Your task to perform on an android device: Open ESPN.com Image 0: 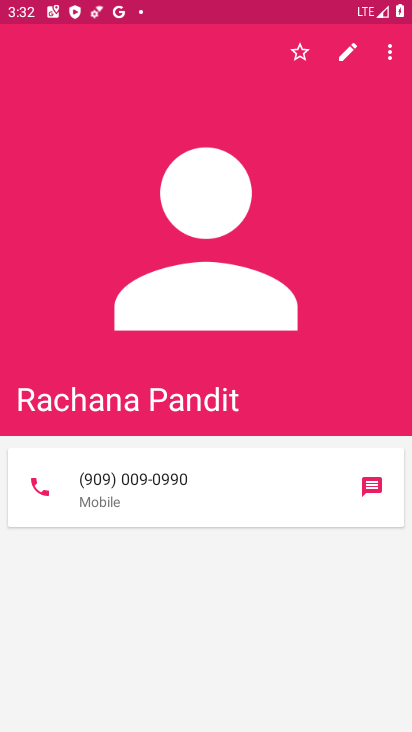
Step 0: press home button
Your task to perform on an android device: Open ESPN.com Image 1: 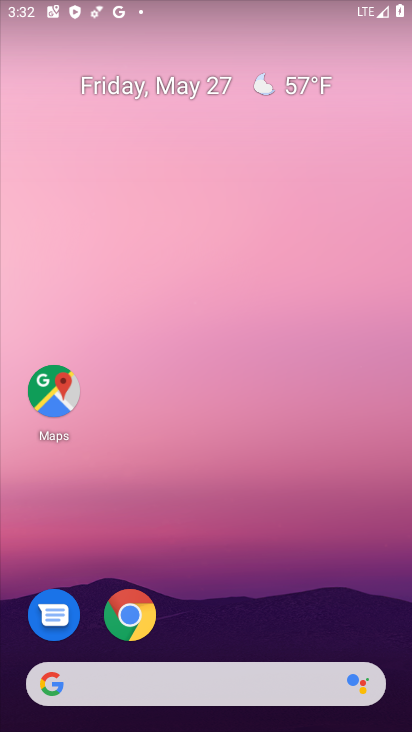
Step 1: click (121, 629)
Your task to perform on an android device: Open ESPN.com Image 2: 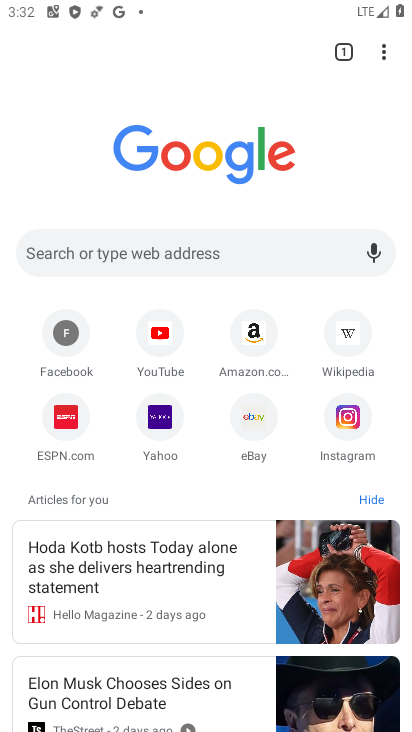
Step 2: click (32, 442)
Your task to perform on an android device: Open ESPN.com Image 3: 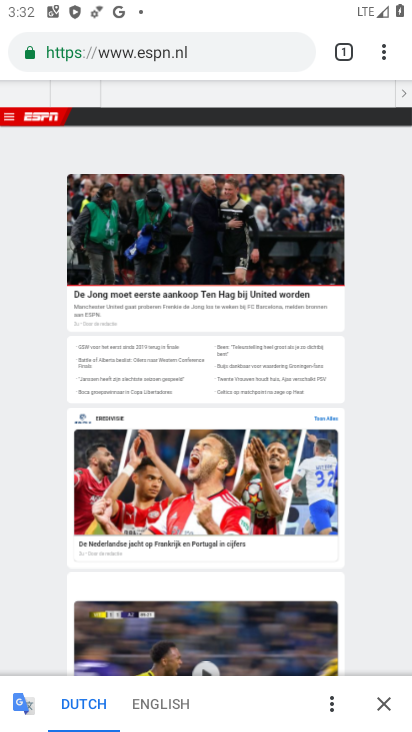
Step 3: click (24, 449)
Your task to perform on an android device: Open ESPN.com Image 4: 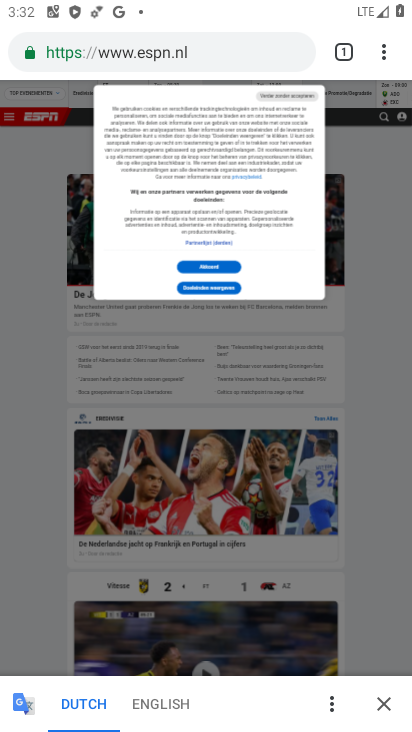
Step 4: click (22, 449)
Your task to perform on an android device: Open ESPN.com Image 5: 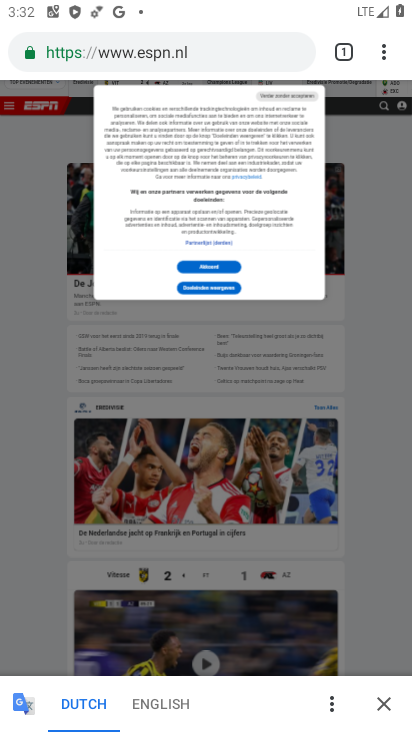
Step 5: task complete